Your task to perform on an android device: Go to battery settings Image 0: 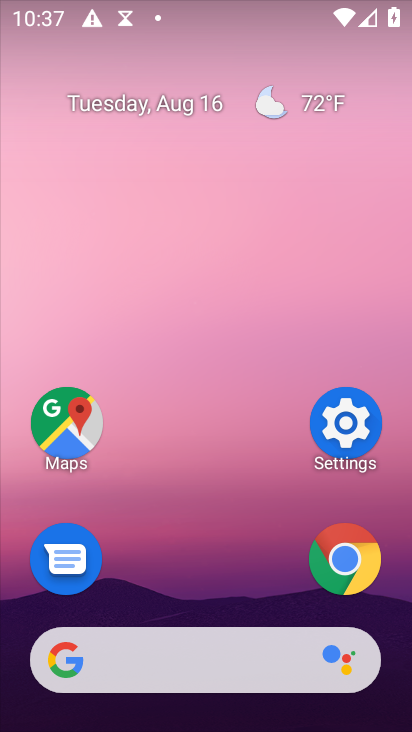
Step 0: click (349, 419)
Your task to perform on an android device: Go to battery settings Image 1: 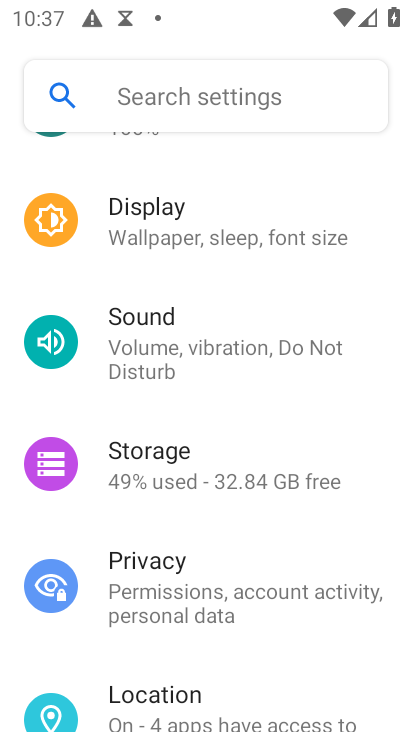
Step 1: drag from (336, 194) to (331, 587)
Your task to perform on an android device: Go to battery settings Image 2: 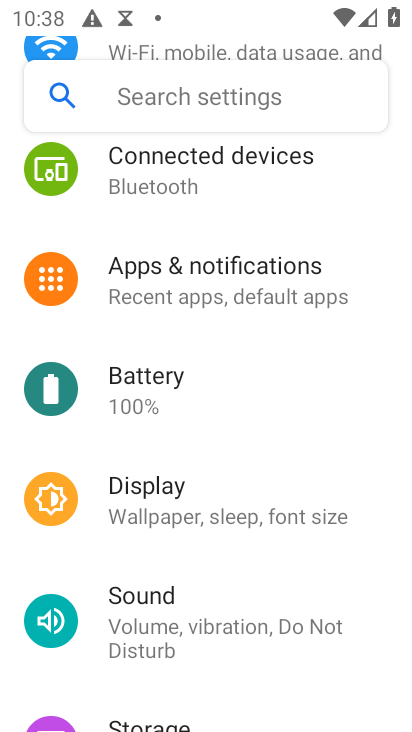
Step 2: click (153, 383)
Your task to perform on an android device: Go to battery settings Image 3: 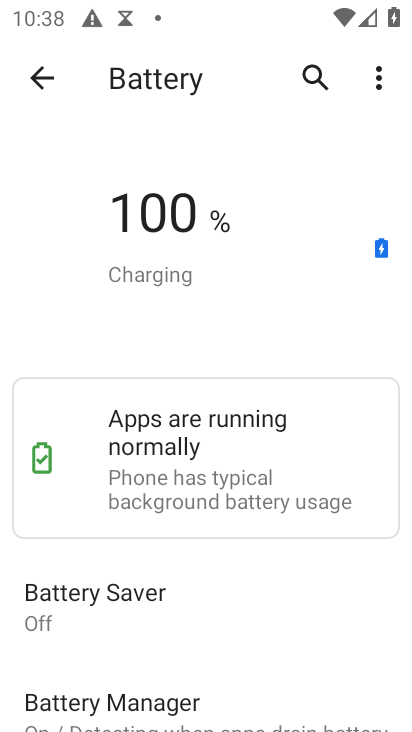
Step 3: task complete